Your task to perform on an android device: turn on wifi Image 0: 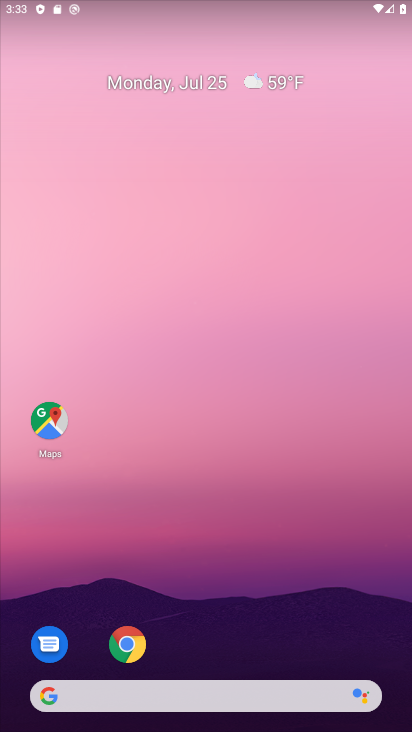
Step 0: drag from (224, 607) to (260, 48)
Your task to perform on an android device: turn on wifi Image 1: 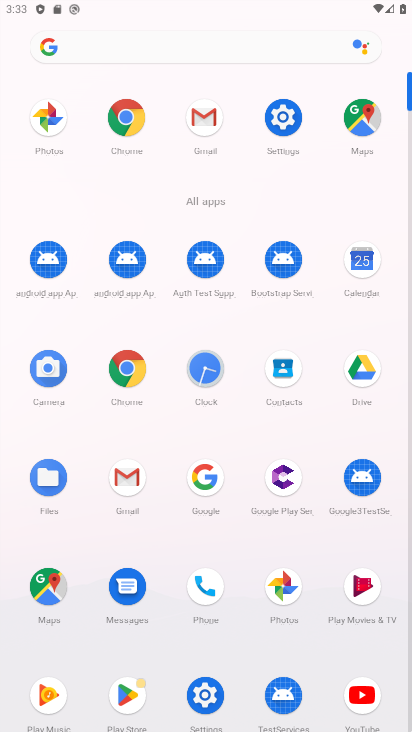
Step 1: click (285, 120)
Your task to perform on an android device: turn on wifi Image 2: 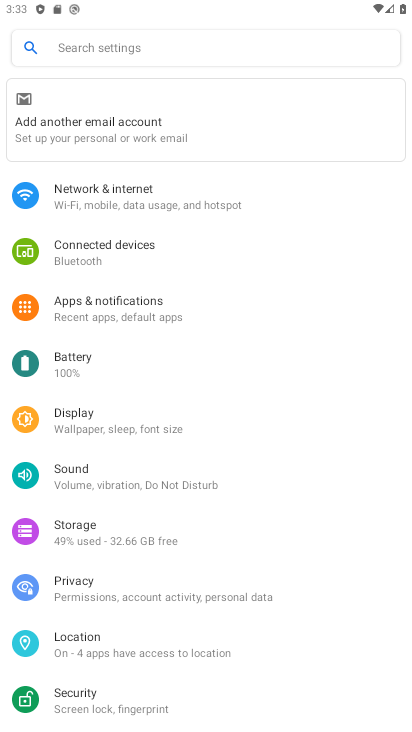
Step 2: click (104, 195)
Your task to perform on an android device: turn on wifi Image 3: 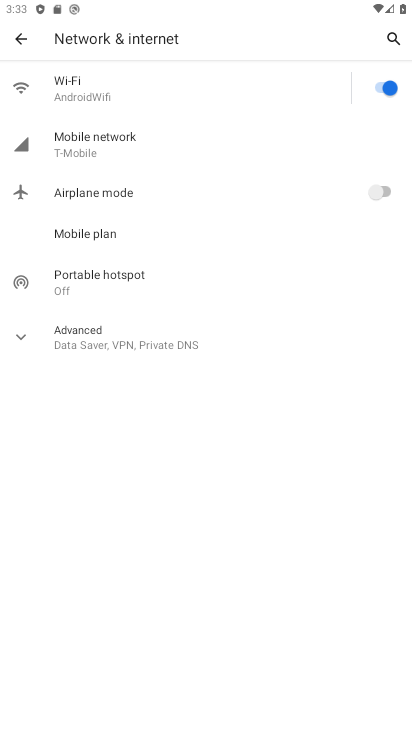
Step 3: task complete